Your task to perform on an android device: Open eBay Image 0: 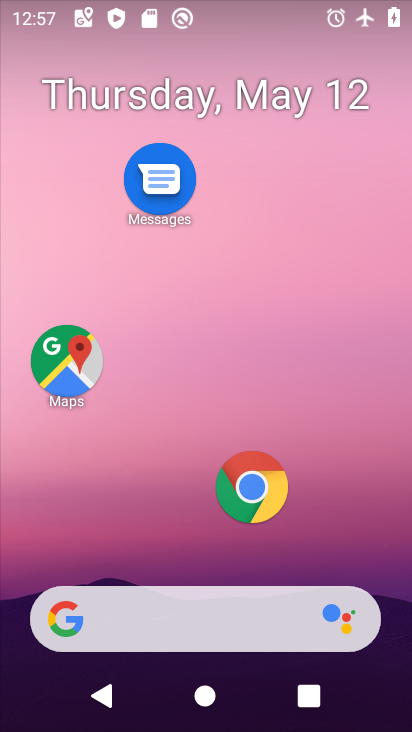
Step 0: click (239, 497)
Your task to perform on an android device: Open eBay Image 1: 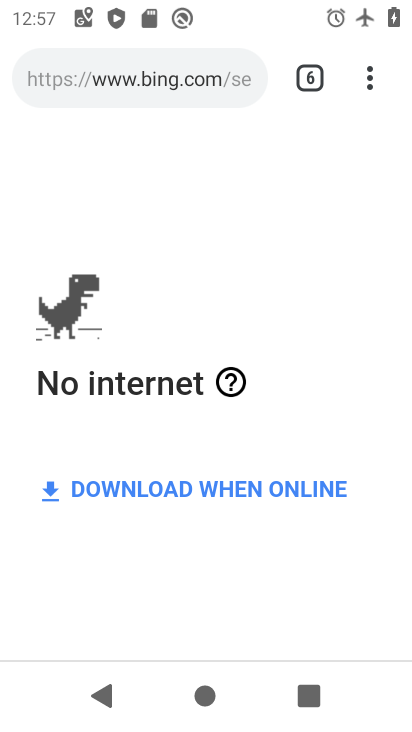
Step 1: click (315, 76)
Your task to perform on an android device: Open eBay Image 2: 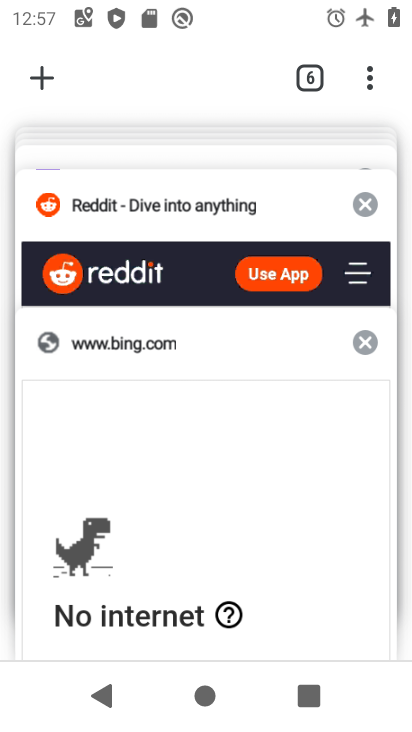
Step 2: click (51, 73)
Your task to perform on an android device: Open eBay Image 3: 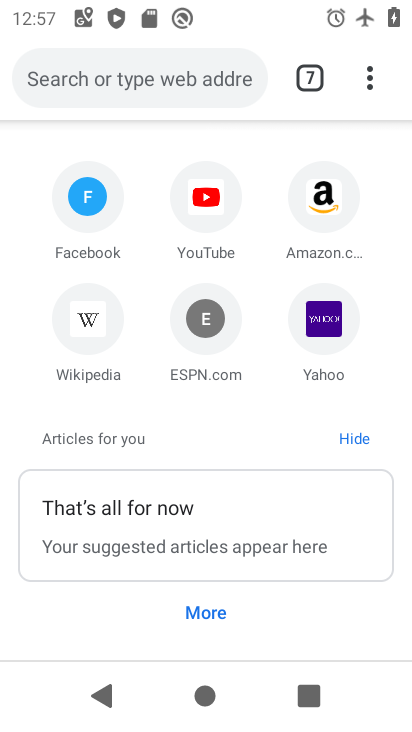
Step 3: click (205, 83)
Your task to perform on an android device: Open eBay Image 4: 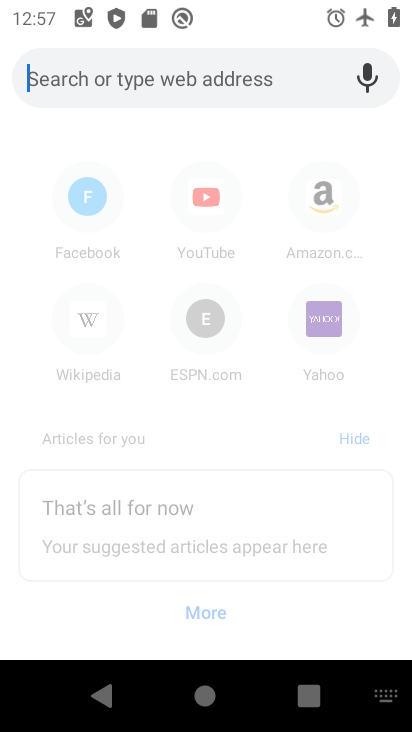
Step 4: click (403, 726)
Your task to perform on an android device: Open eBay Image 5: 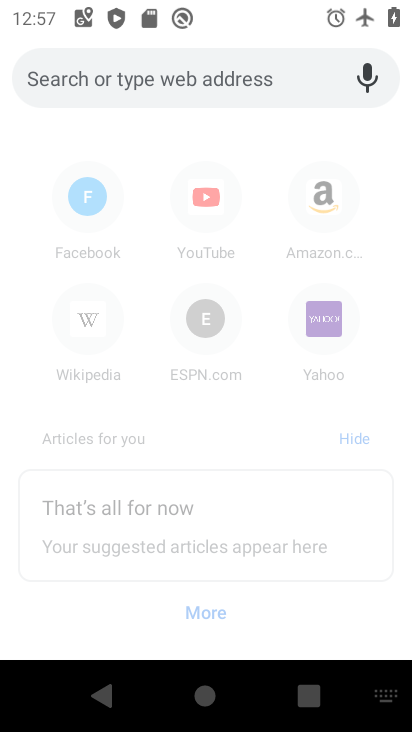
Step 5: type "eBay"
Your task to perform on an android device: Open eBay Image 6: 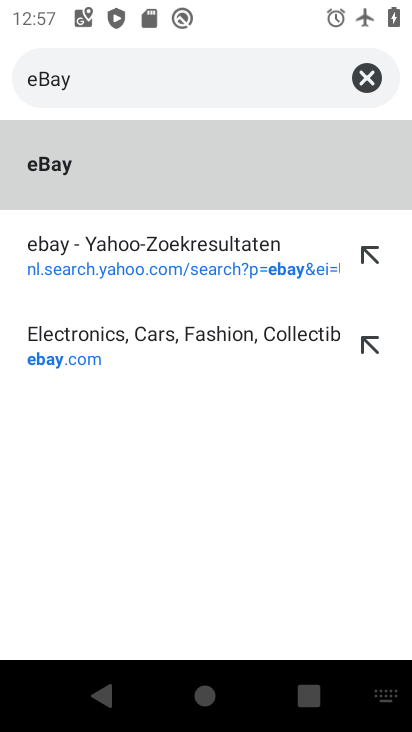
Step 6: click (136, 182)
Your task to perform on an android device: Open eBay Image 7: 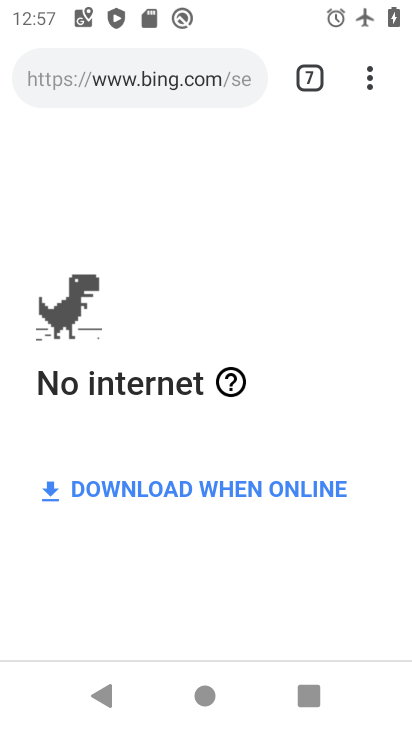
Step 7: task complete